Your task to perform on an android device: Search for sushi restaurants on Maps Image 0: 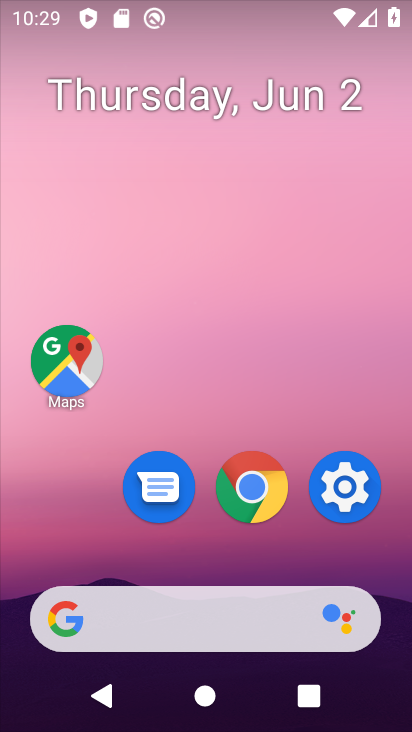
Step 0: drag from (252, 591) to (177, 174)
Your task to perform on an android device: Search for sushi restaurants on Maps Image 1: 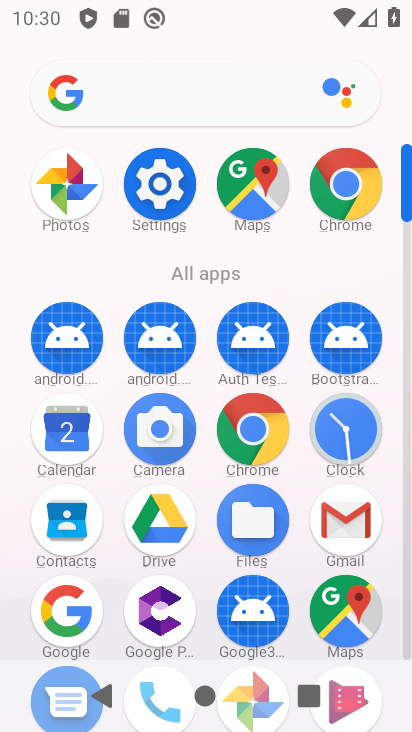
Step 1: click (226, 197)
Your task to perform on an android device: Search for sushi restaurants on Maps Image 2: 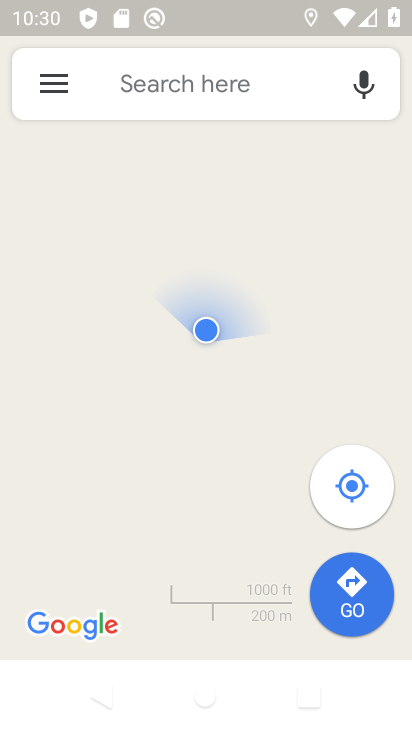
Step 2: click (55, 73)
Your task to perform on an android device: Search for sushi restaurants on Maps Image 3: 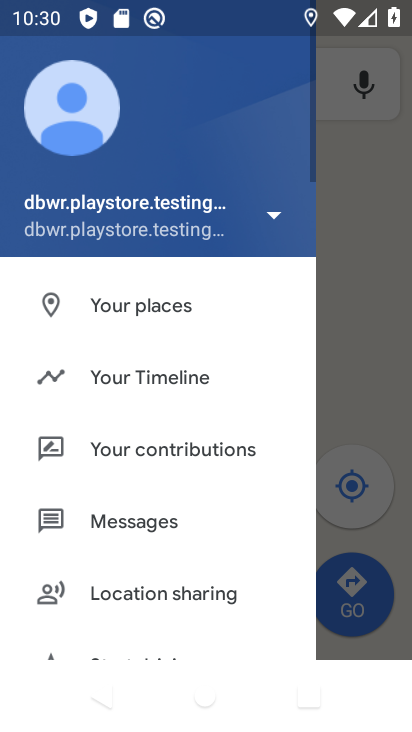
Step 3: click (383, 177)
Your task to perform on an android device: Search for sushi restaurants on Maps Image 4: 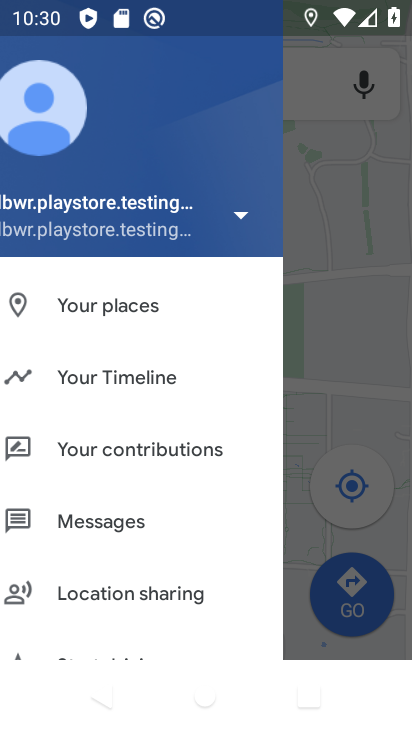
Step 4: click (383, 177)
Your task to perform on an android device: Search for sushi restaurants on Maps Image 5: 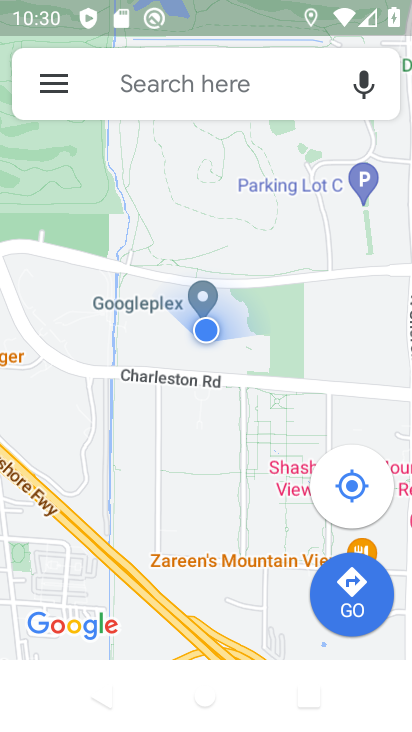
Step 5: click (153, 86)
Your task to perform on an android device: Search for sushi restaurants on Maps Image 6: 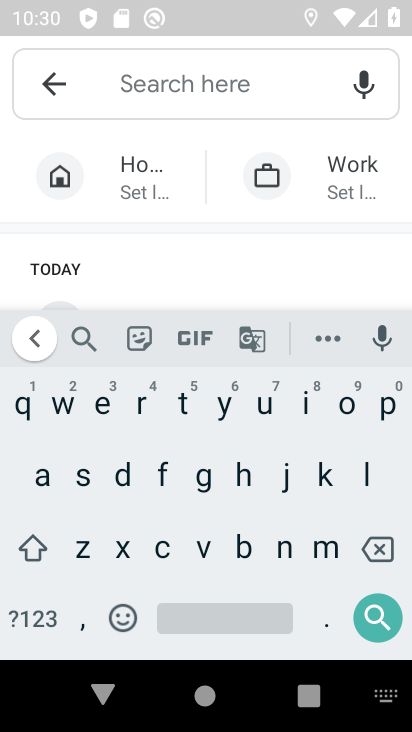
Step 6: click (86, 481)
Your task to perform on an android device: Search for sushi restaurants on Maps Image 7: 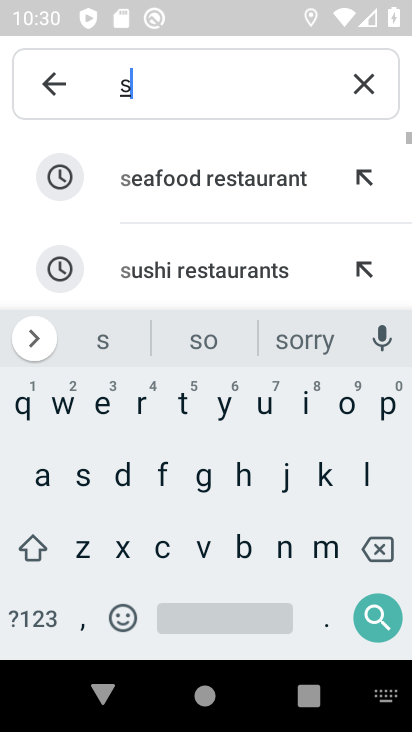
Step 7: click (268, 406)
Your task to perform on an android device: Search for sushi restaurants on Maps Image 8: 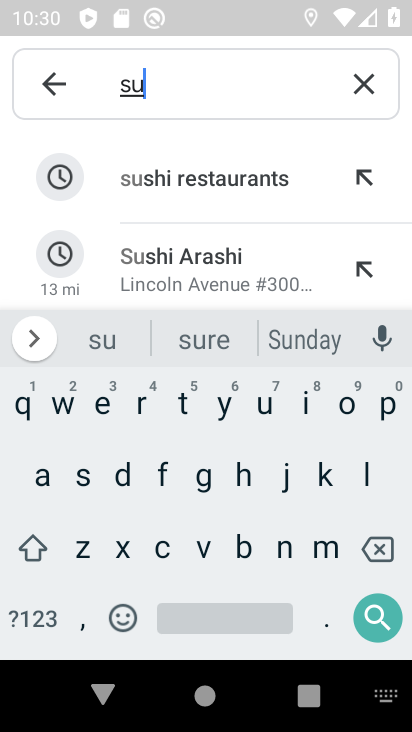
Step 8: click (228, 174)
Your task to perform on an android device: Search for sushi restaurants on Maps Image 9: 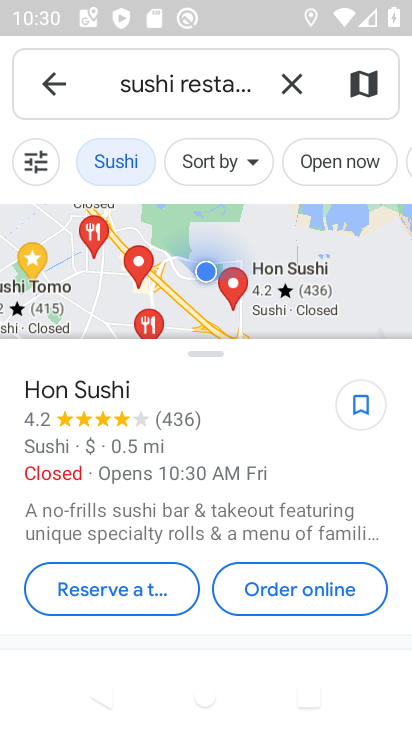
Step 9: task complete